Your task to perform on an android device: Go to internet settings Image 0: 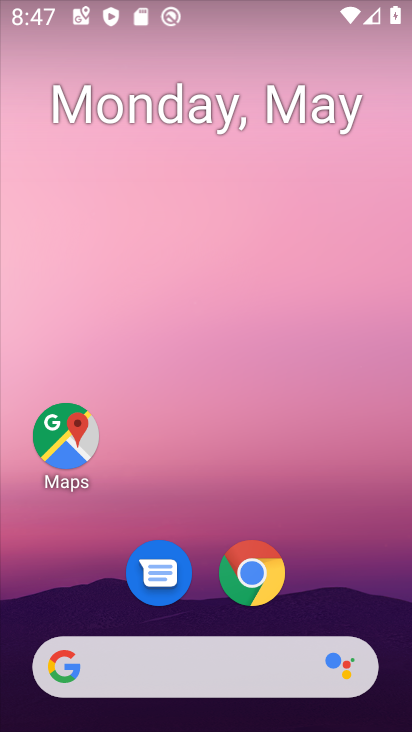
Step 0: drag from (360, 581) to (332, 54)
Your task to perform on an android device: Go to internet settings Image 1: 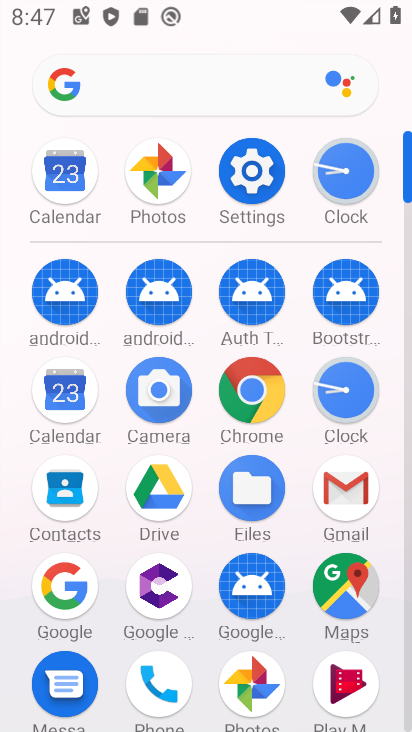
Step 1: click (257, 200)
Your task to perform on an android device: Go to internet settings Image 2: 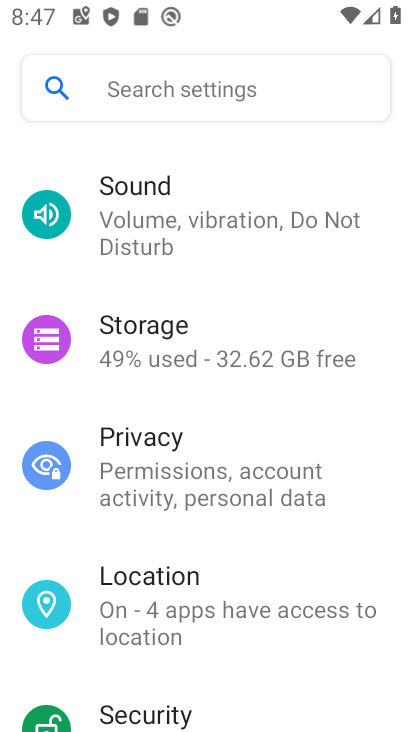
Step 2: drag from (303, 219) to (271, 714)
Your task to perform on an android device: Go to internet settings Image 3: 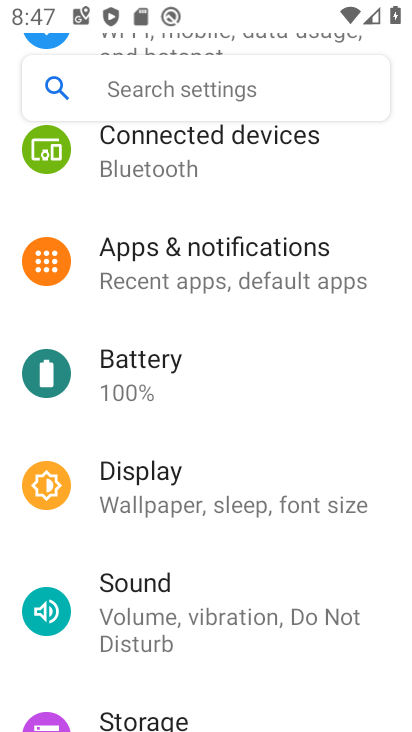
Step 3: drag from (249, 230) to (317, 553)
Your task to perform on an android device: Go to internet settings Image 4: 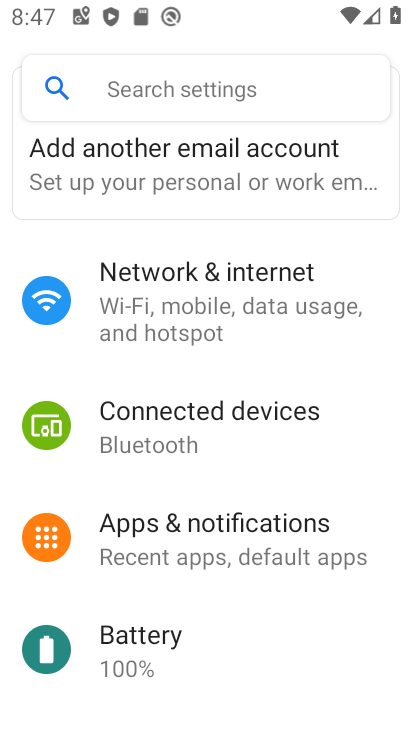
Step 4: click (247, 289)
Your task to perform on an android device: Go to internet settings Image 5: 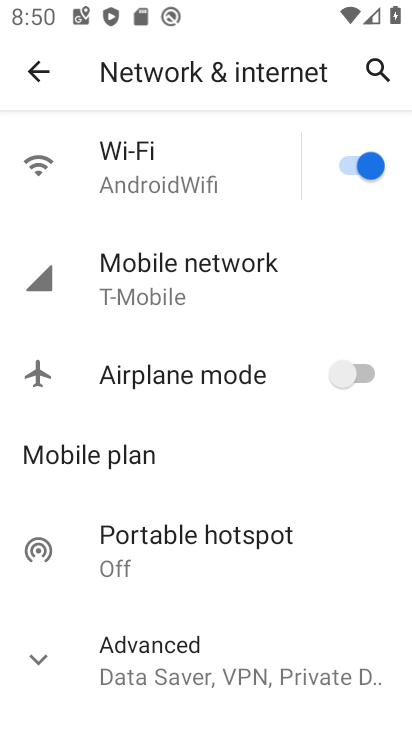
Step 5: task complete